Your task to perform on an android device: allow cookies in the chrome app Image 0: 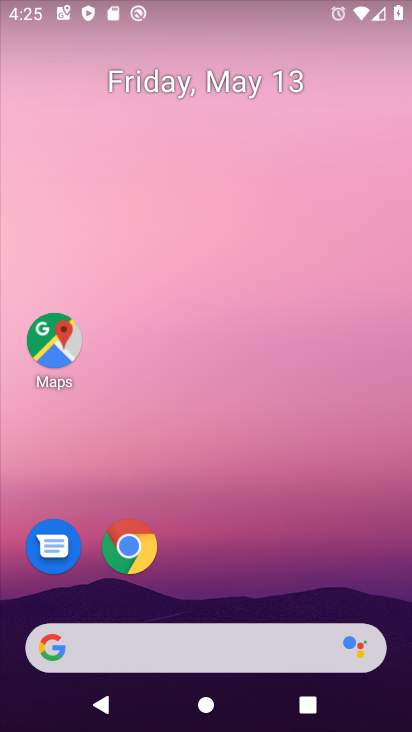
Step 0: click (123, 527)
Your task to perform on an android device: allow cookies in the chrome app Image 1: 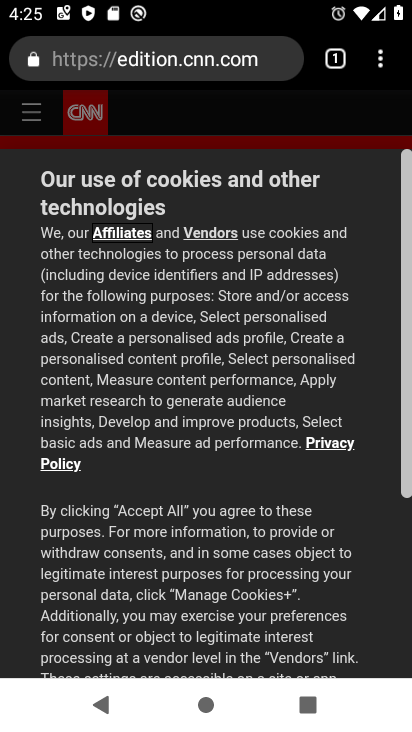
Step 1: click (384, 69)
Your task to perform on an android device: allow cookies in the chrome app Image 2: 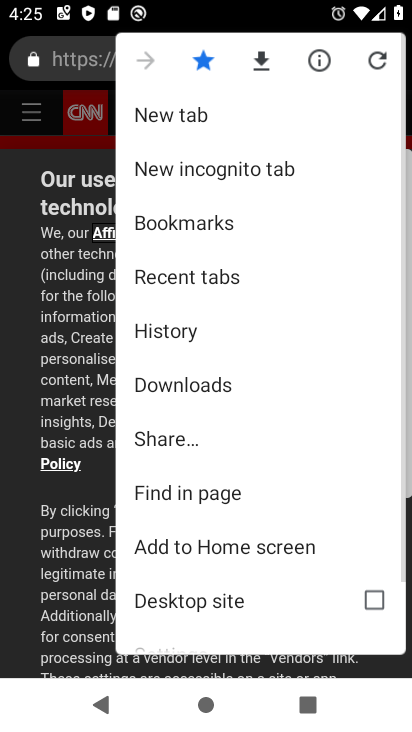
Step 2: drag from (191, 561) to (238, 283)
Your task to perform on an android device: allow cookies in the chrome app Image 3: 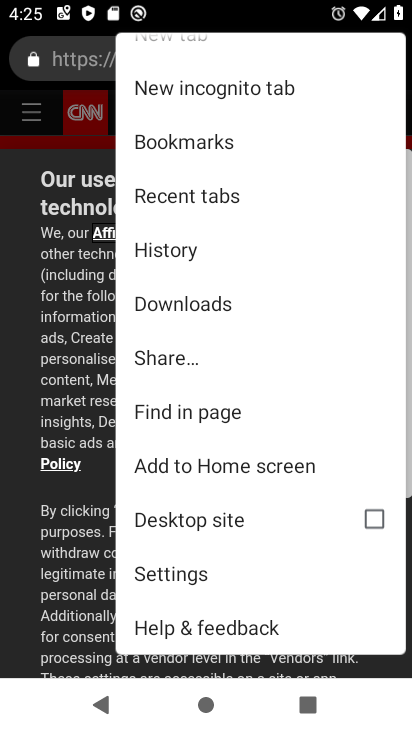
Step 3: click (197, 583)
Your task to perform on an android device: allow cookies in the chrome app Image 4: 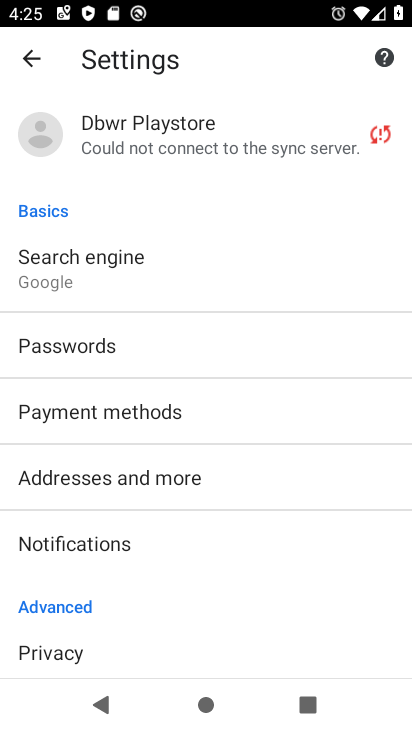
Step 4: drag from (205, 563) to (280, 142)
Your task to perform on an android device: allow cookies in the chrome app Image 5: 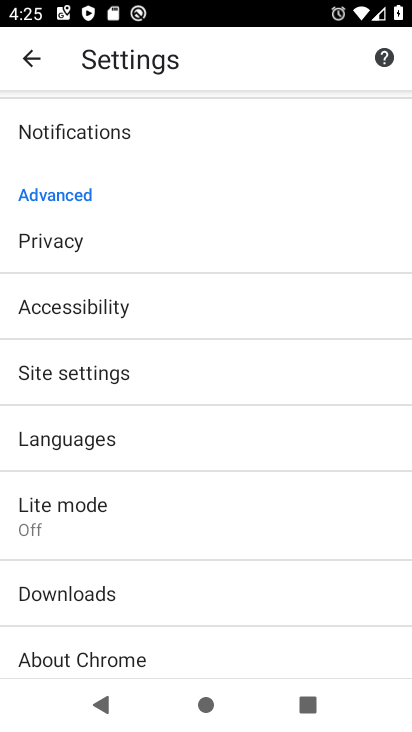
Step 5: click (131, 374)
Your task to perform on an android device: allow cookies in the chrome app Image 6: 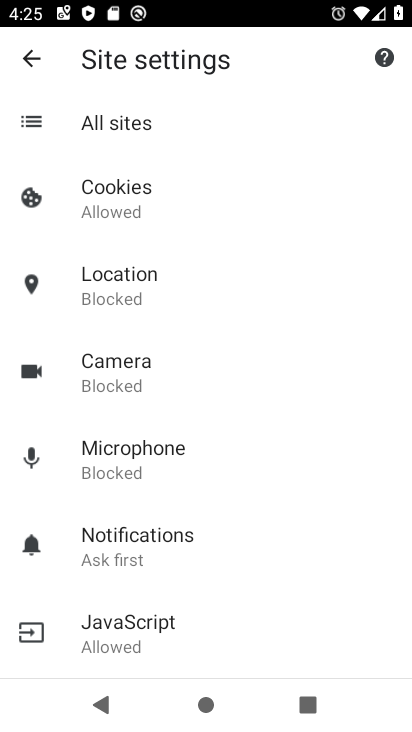
Step 6: click (120, 215)
Your task to perform on an android device: allow cookies in the chrome app Image 7: 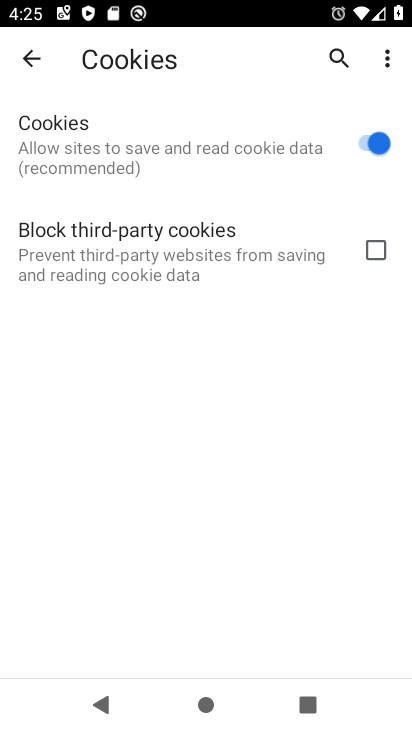
Step 7: task complete